Your task to perform on an android device: search for starred emails in the gmail app Image 0: 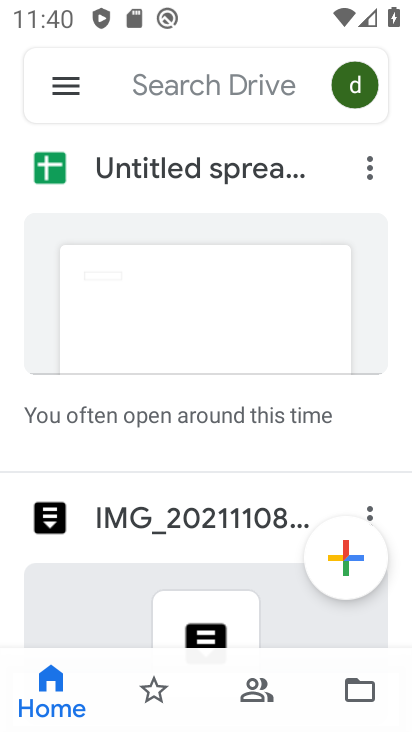
Step 0: press home button
Your task to perform on an android device: search for starred emails in the gmail app Image 1: 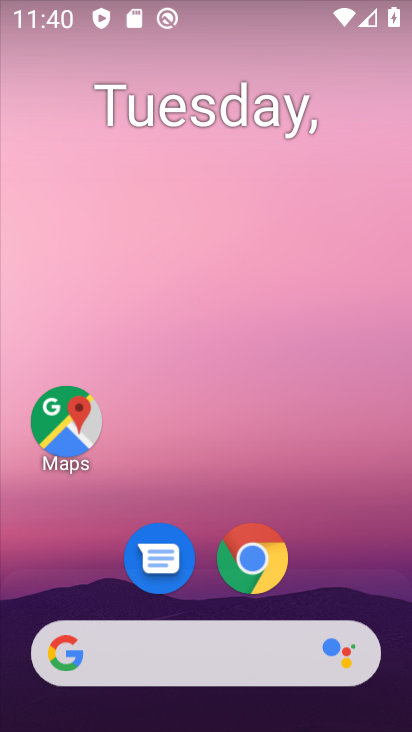
Step 1: drag from (211, 469) to (234, 264)
Your task to perform on an android device: search for starred emails in the gmail app Image 2: 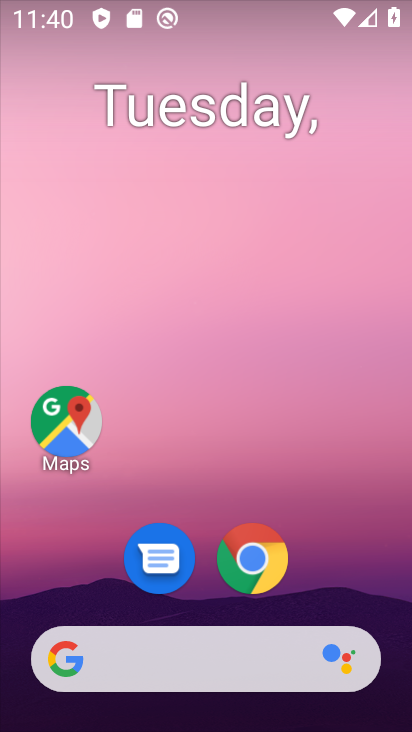
Step 2: drag from (191, 621) to (214, 207)
Your task to perform on an android device: search for starred emails in the gmail app Image 3: 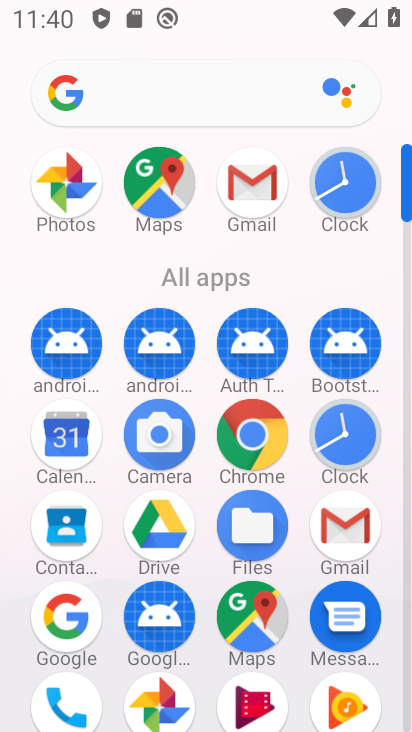
Step 3: click (355, 529)
Your task to perform on an android device: search for starred emails in the gmail app Image 4: 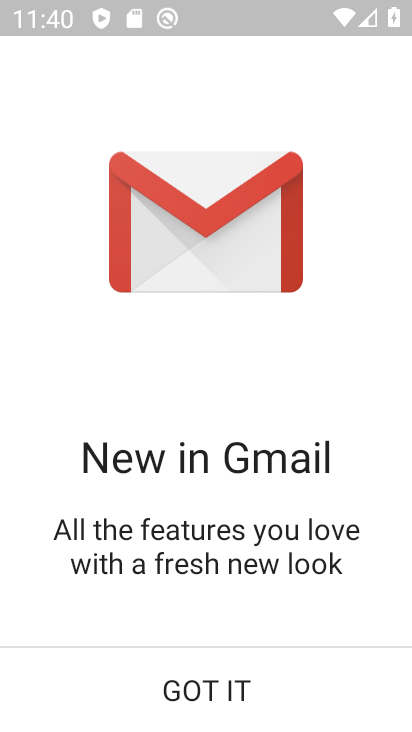
Step 4: click (242, 686)
Your task to perform on an android device: search for starred emails in the gmail app Image 5: 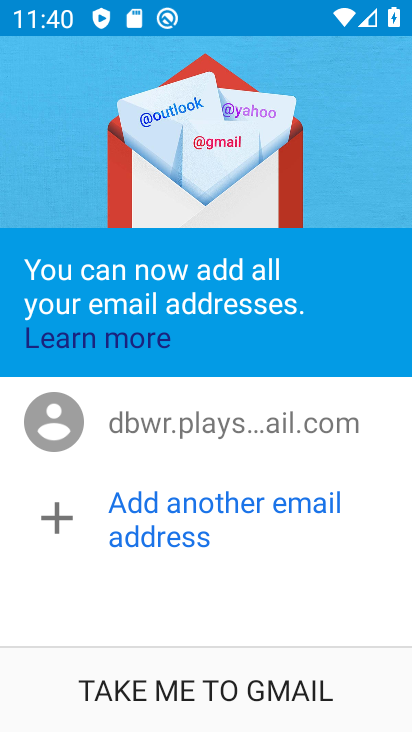
Step 5: click (223, 701)
Your task to perform on an android device: search for starred emails in the gmail app Image 6: 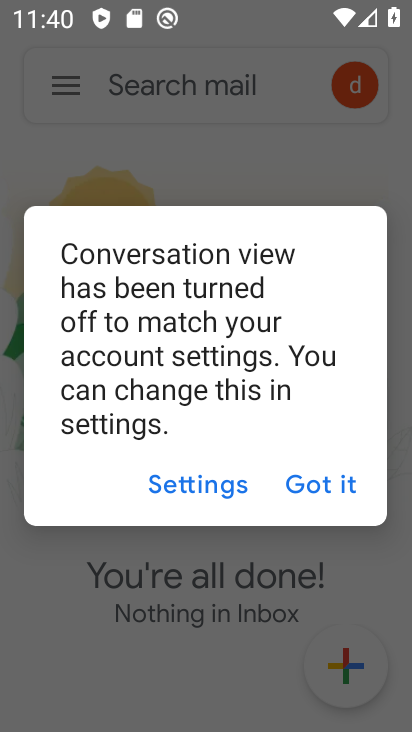
Step 6: click (326, 499)
Your task to perform on an android device: search for starred emails in the gmail app Image 7: 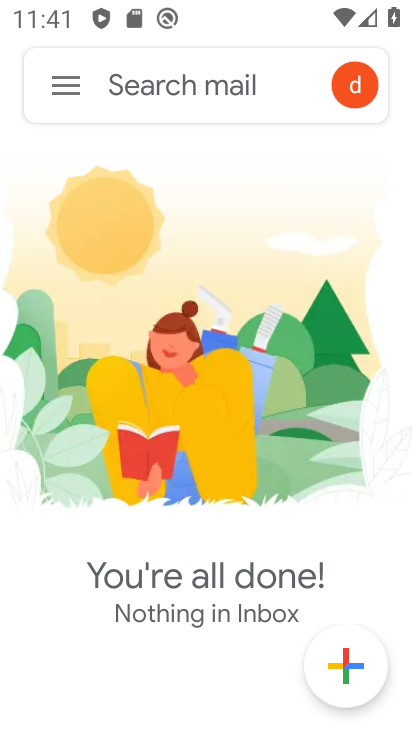
Step 7: click (65, 90)
Your task to perform on an android device: search for starred emails in the gmail app Image 8: 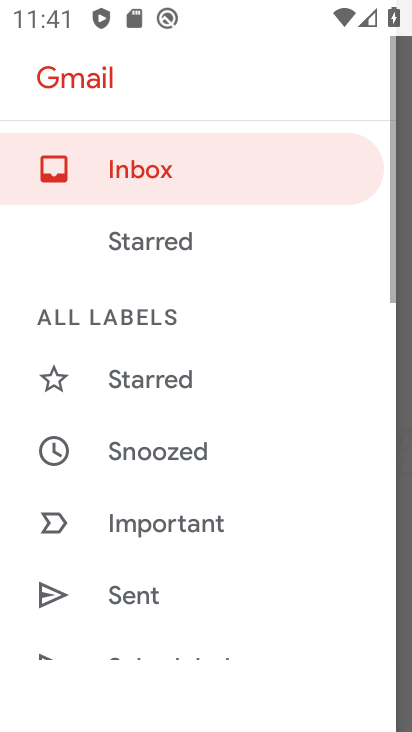
Step 8: click (160, 383)
Your task to perform on an android device: search for starred emails in the gmail app Image 9: 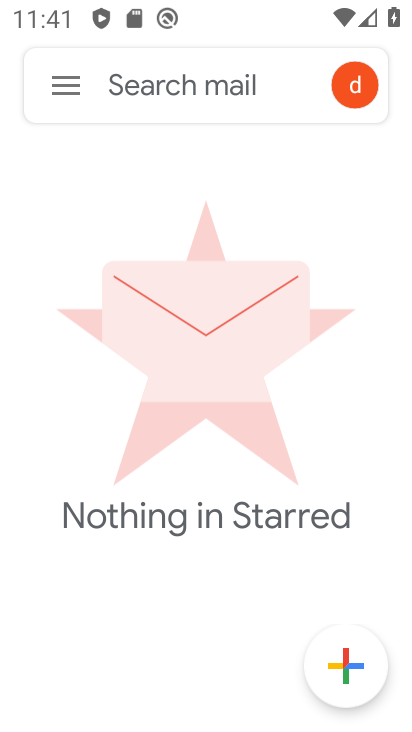
Step 9: task complete